Your task to perform on an android device: change the clock display to digital Image 0: 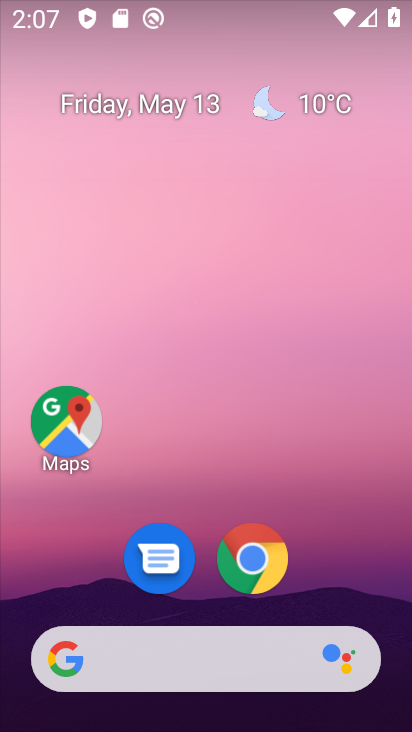
Step 0: drag from (206, 602) to (202, 276)
Your task to perform on an android device: change the clock display to digital Image 1: 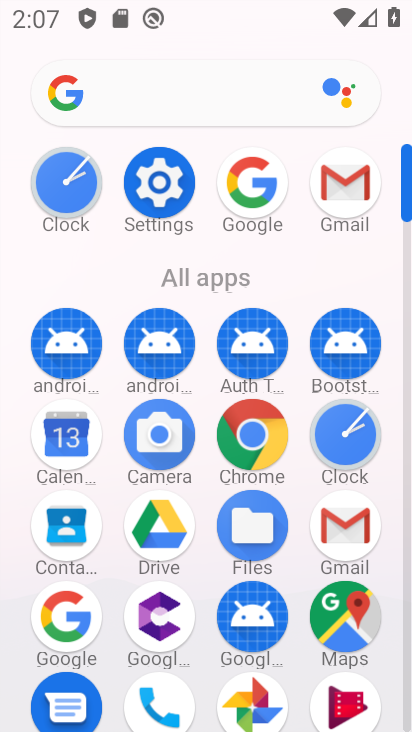
Step 1: click (69, 193)
Your task to perform on an android device: change the clock display to digital Image 2: 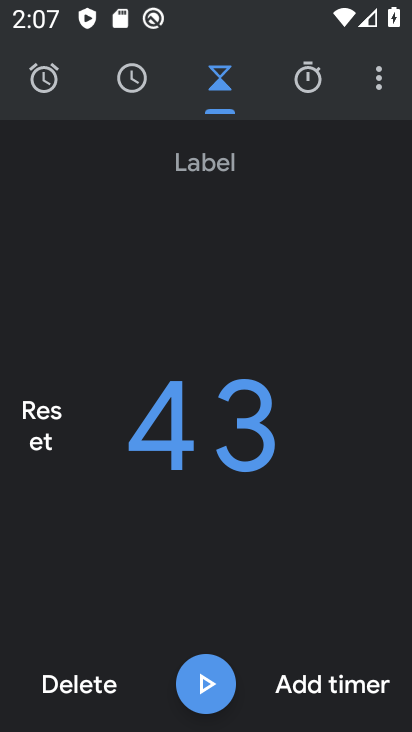
Step 2: click (367, 76)
Your task to perform on an android device: change the clock display to digital Image 3: 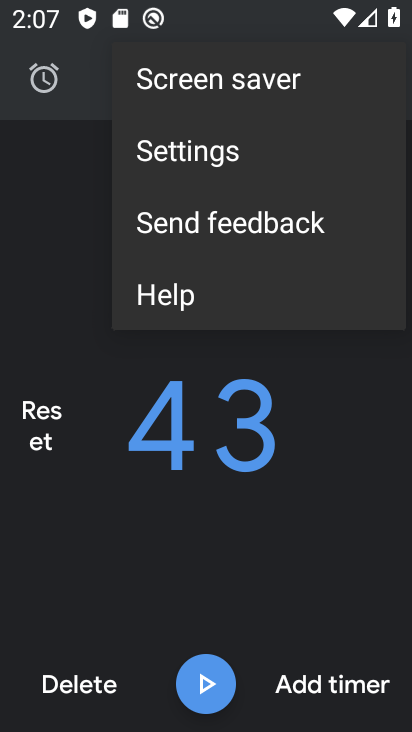
Step 3: click (204, 163)
Your task to perform on an android device: change the clock display to digital Image 4: 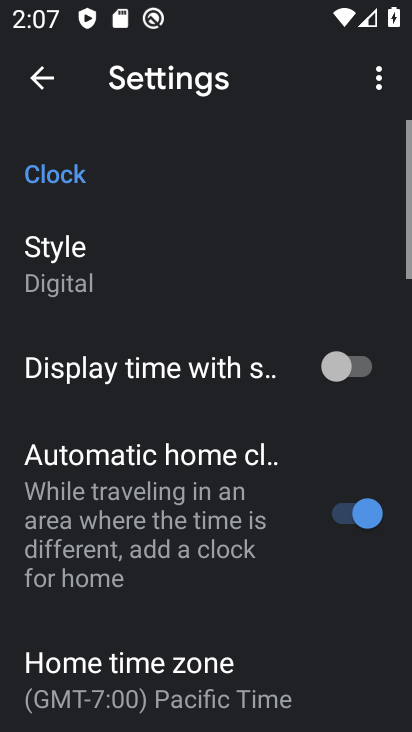
Step 4: click (109, 248)
Your task to perform on an android device: change the clock display to digital Image 5: 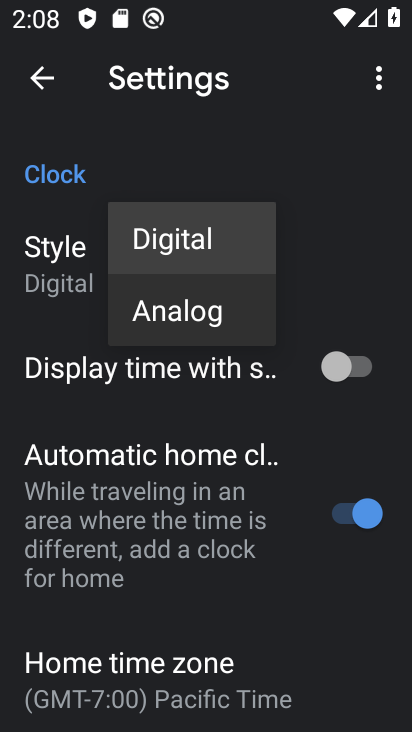
Step 5: task complete